Your task to perform on an android device: check data usage Image 0: 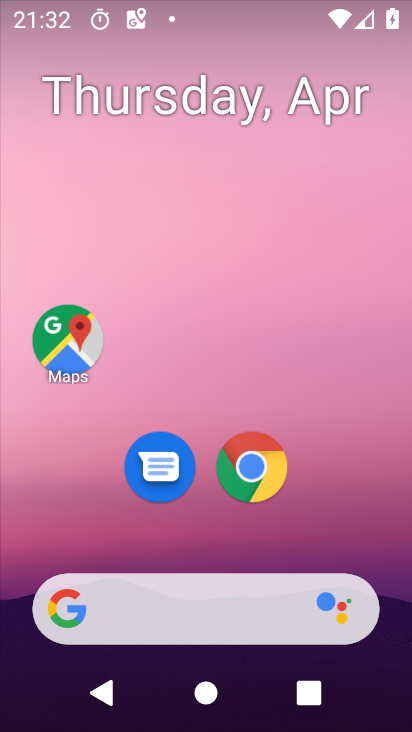
Step 0: drag from (176, 529) to (271, 6)
Your task to perform on an android device: check data usage Image 1: 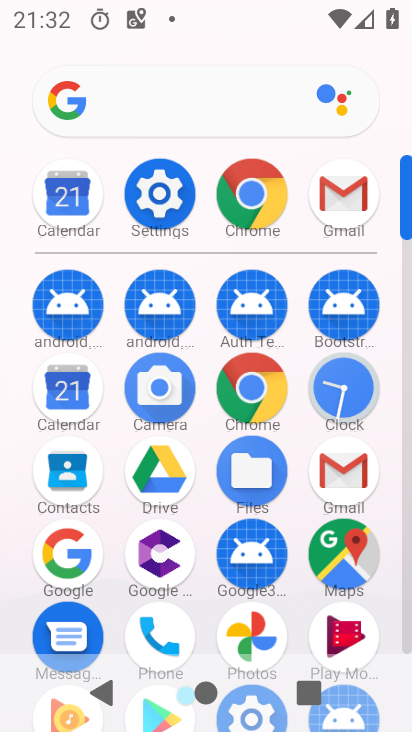
Step 1: click (144, 181)
Your task to perform on an android device: check data usage Image 2: 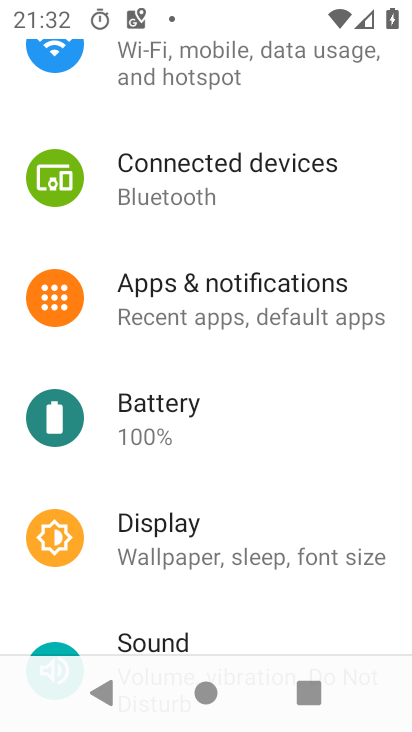
Step 2: drag from (291, 232) to (255, 600)
Your task to perform on an android device: check data usage Image 3: 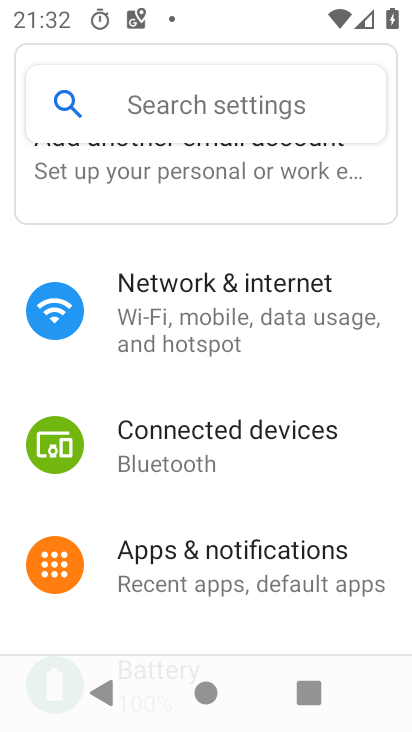
Step 3: click (217, 323)
Your task to perform on an android device: check data usage Image 4: 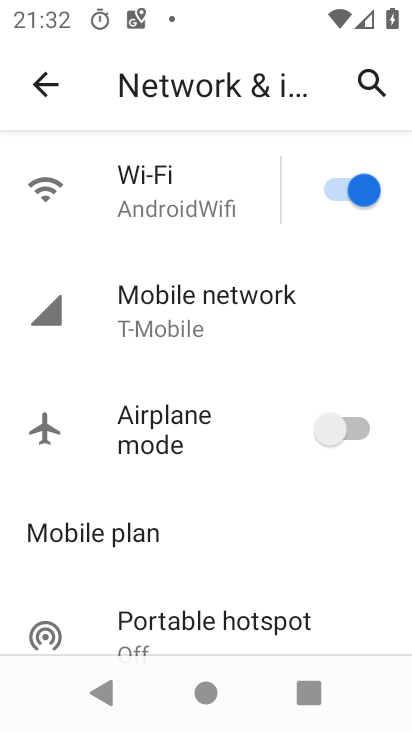
Step 4: click (220, 325)
Your task to perform on an android device: check data usage Image 5: 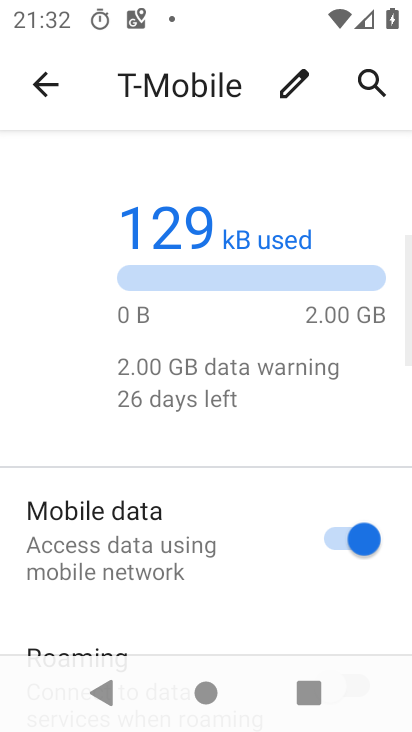
Step 5: task complete